Your task to perform on an android device: Is it going to rain tomorrow? Image 0: 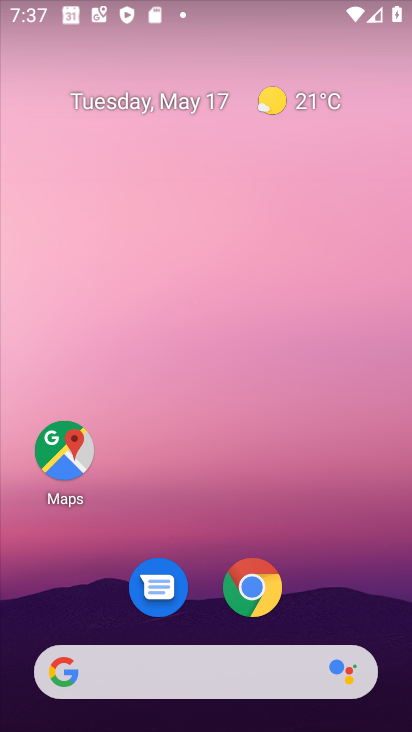
Step 0: click (282, 669)
Your task to perform on an android device: Is it going to rain tomorrow? Image 1: 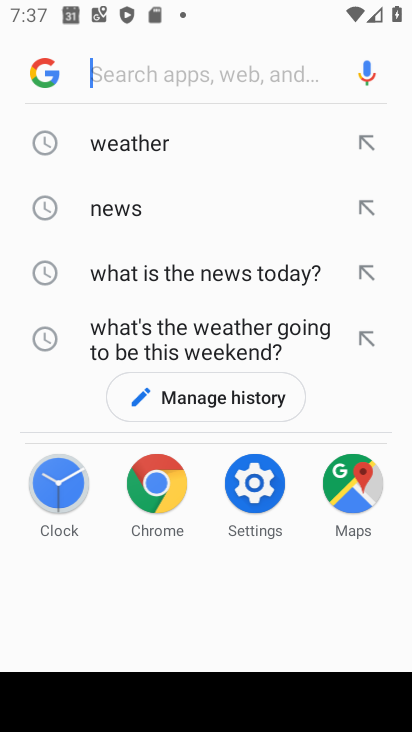
Step 1: click (142, 132)
Your task to perform on an android device: Is it going to rain tomorrow? Image 2: 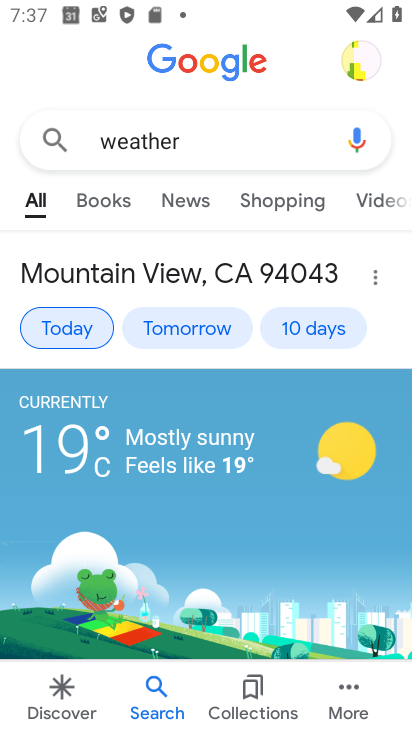
Step 2: click (200, 335)
Your task to perform on an android device: Is it going to rain tomorrow? Image 3: 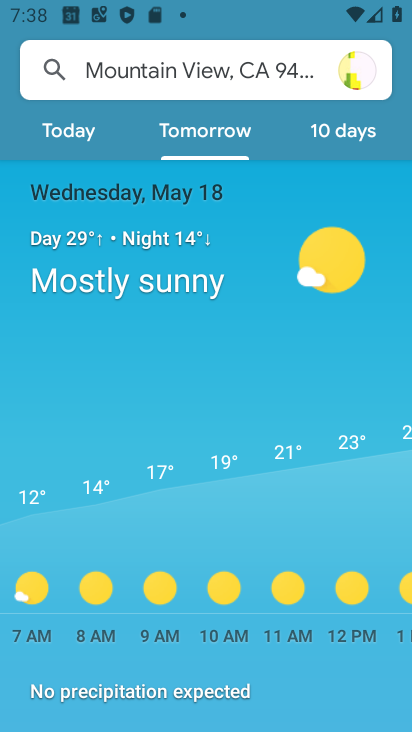
Step 3: task complete